Your task to perform on an android device: Go to ESPN.com Image 0: 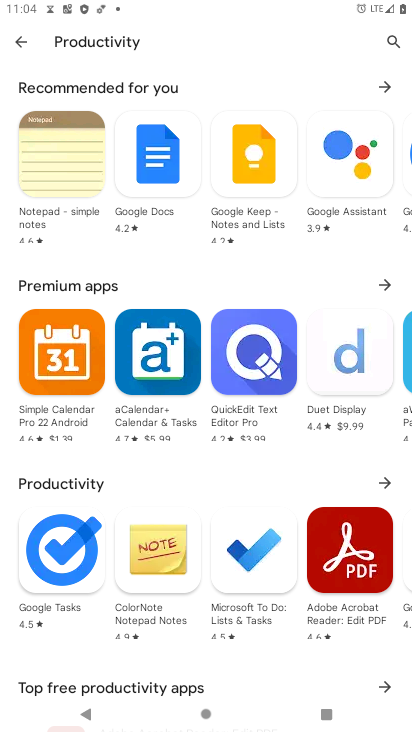
Step 0: press home button
Your task to perform on an android device: Go to ESPN.com Image 1: 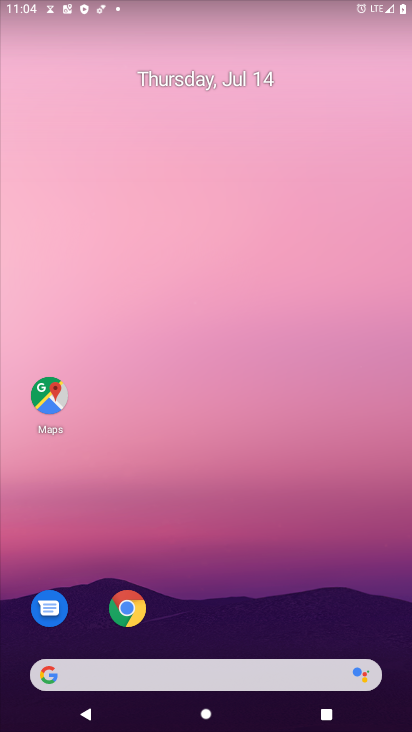
Step 1: click (130, 614)
Your task to perform on an android device: Go to ESPN.com Image 2: 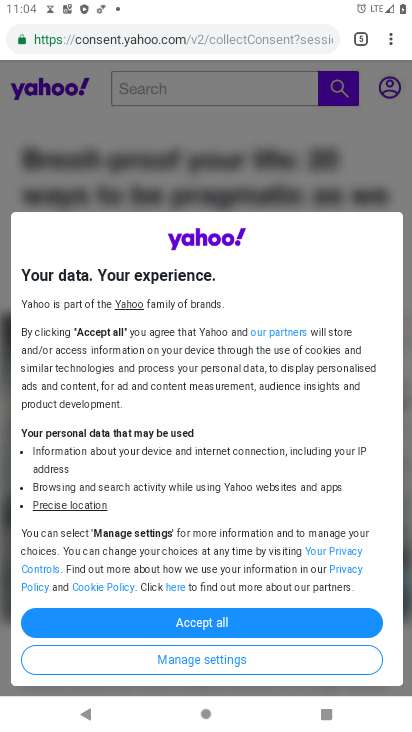
Step 2: click (390, 42)
Your task to perform on an android device: Go to ESPN.com Image 3: 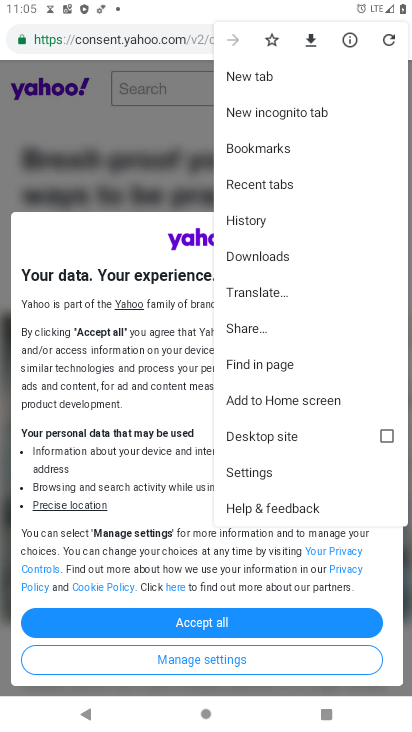
Step 3: click (246, 74)
Your task to perform on an android device: Go to ESPN.com Image 4: 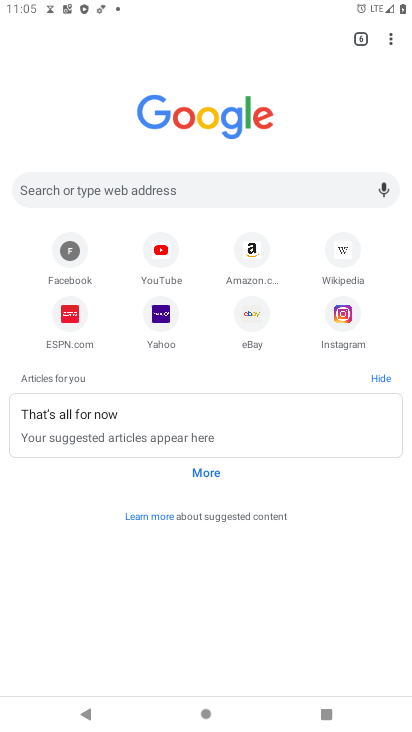
Step 4: click (71, 312)
Your task to perform on an android device: Go to ESPN.com Image 5: 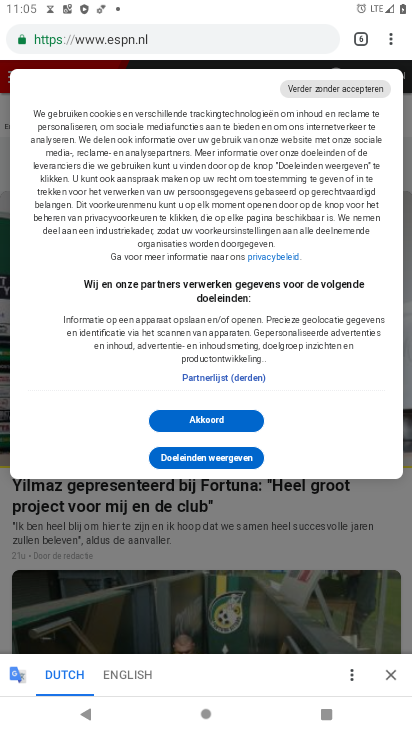
Step 5: click (198, 418)
Your task to perform on an android device: Go to ESPN.com Image 6: 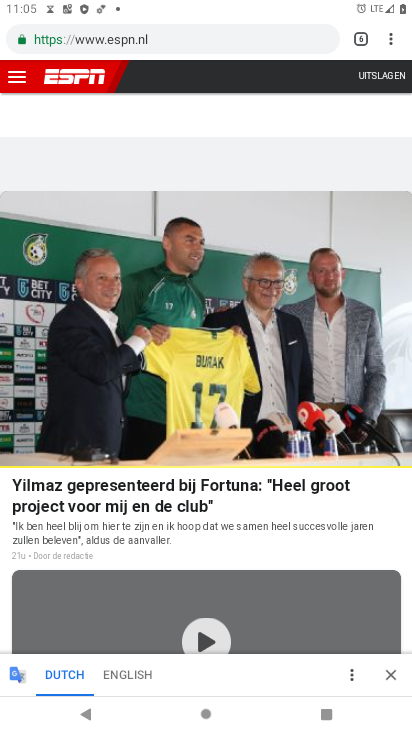
Step 6: task complete